Your task to perform on an android device: Go to notification settings Image 0: 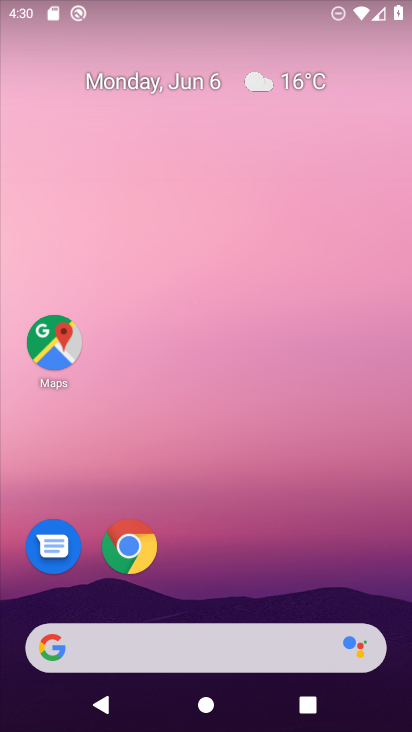
Step 0: drag from (221, 594) to (226, 18)
Your task to perform on an android device: Go to notification settings Image 1: 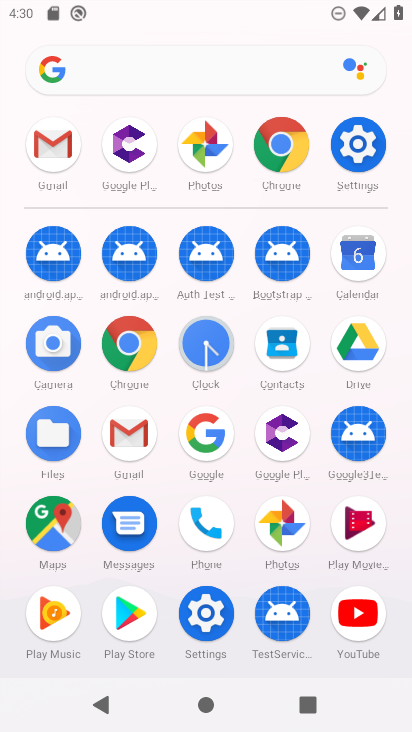
Step 1: click (377, 143)
Your task to perform on an android device: Go to notification settings Image 2: 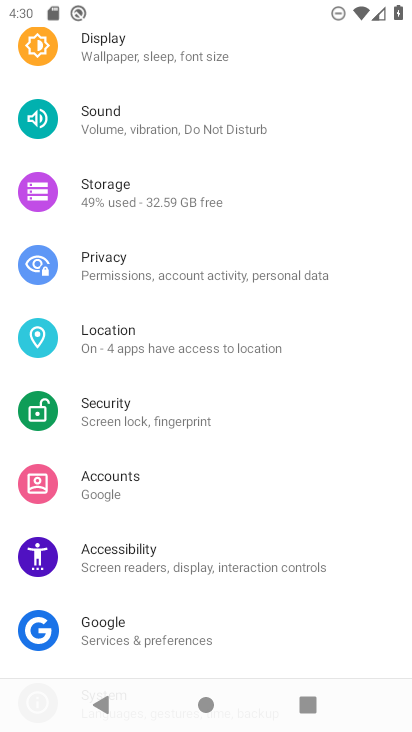
Step 2: drag from (117, 218) to (143, 659)
Your task to perform on an android device: Go to notification settings Image 3: 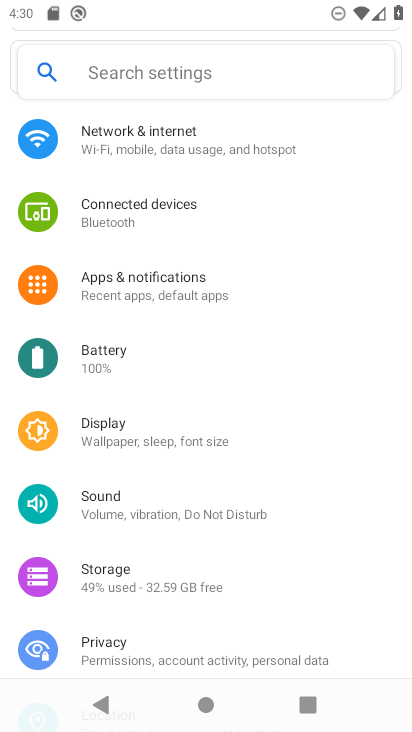
Step 3: click (166, 279)
Your task to perform on an android device: Go to notification settings Image 4: 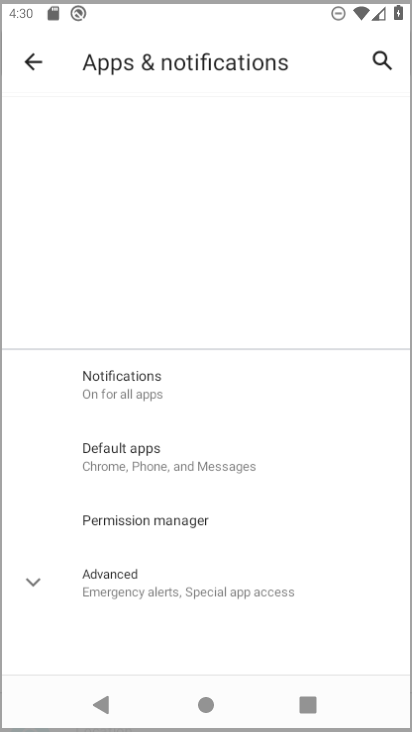
Step 4: task complete